Your task to perform on an android device: turn off airplane mode Image 0: 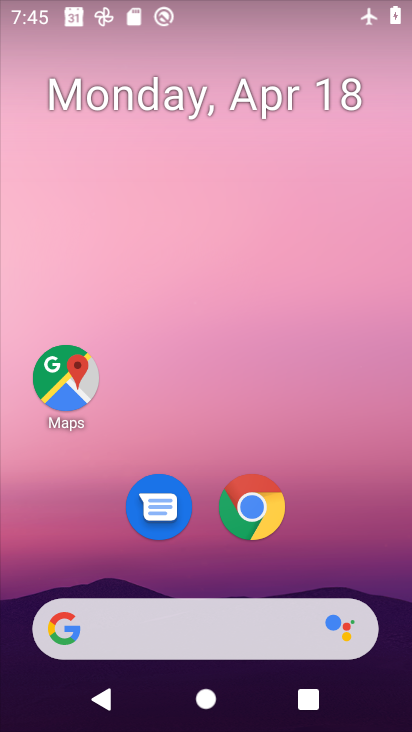
Step 0: drag from (233, 2) to (220, 436)
Your task to perform on an android device: turn off airplane mode Image 1: 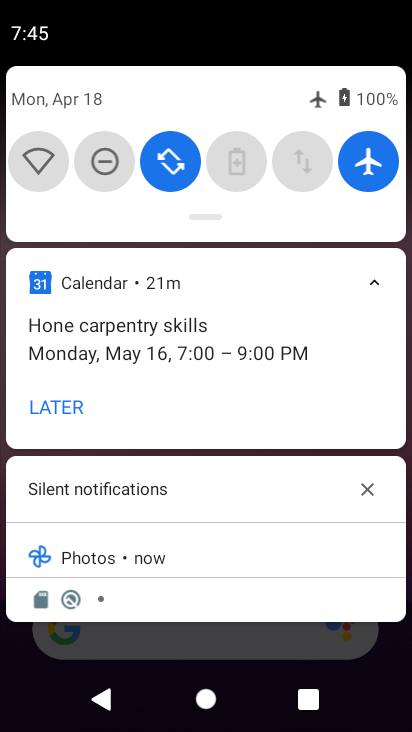
Step 1: click (358, 161)
Your task to perform on an android device: turn off airplane mode Image 2: 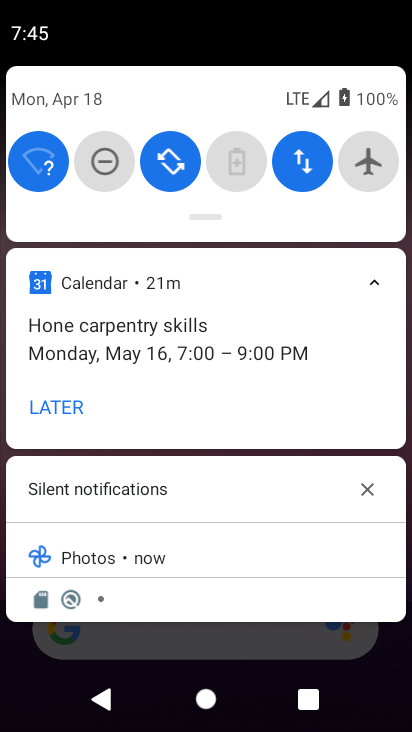
Step 2: task complete